Your task to perform on an android device: change the clock display to analog Image 0: 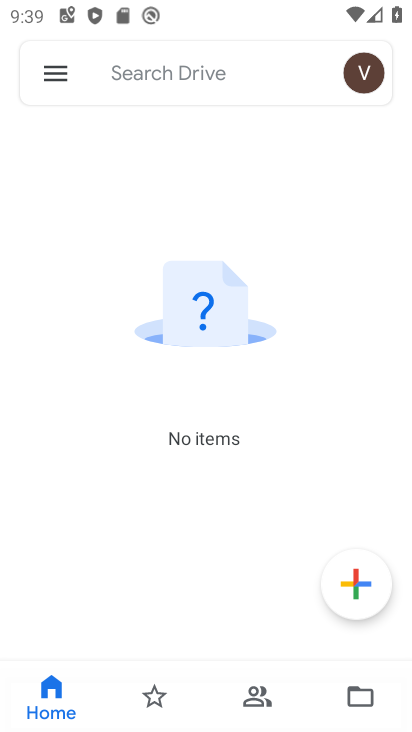
Step 0: press home button
Your task to perform on an android device: change the clock display to analog Image 1: 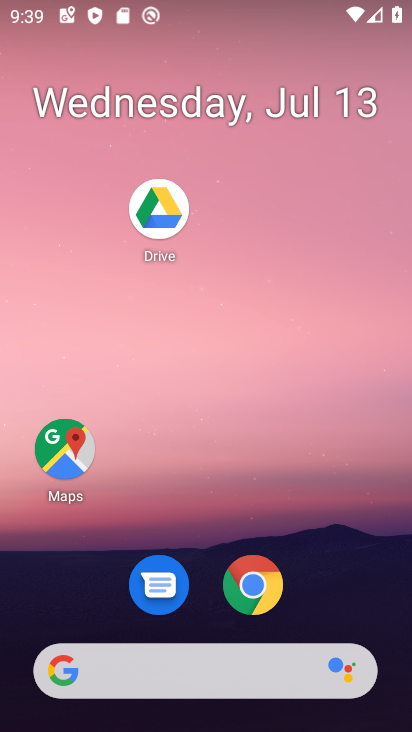
Step 1: drag from (235, 671) to (318, 130)
Your task to perform on an android device: change the clock display to analog Image 2: 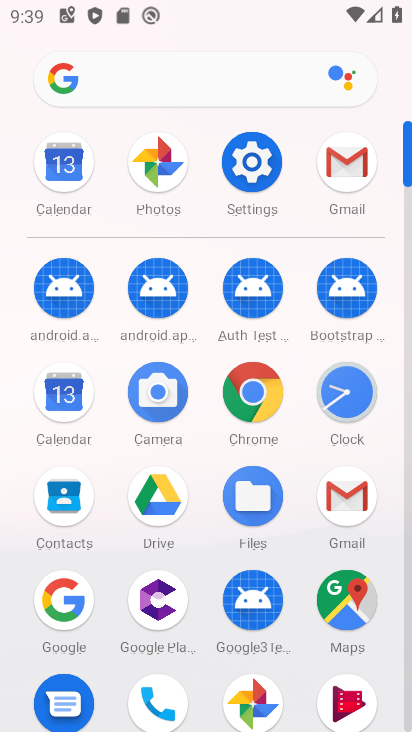
Step 2: click (340, 387)
Your task to perform on an android device: change the clock display to analog Image 3: 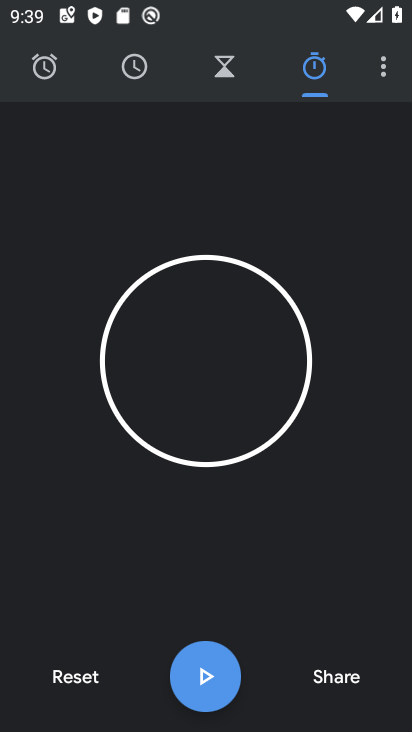
Step 3: click (388, 61)
Your task to perform on an android device: change the clock display to analog Image 4: 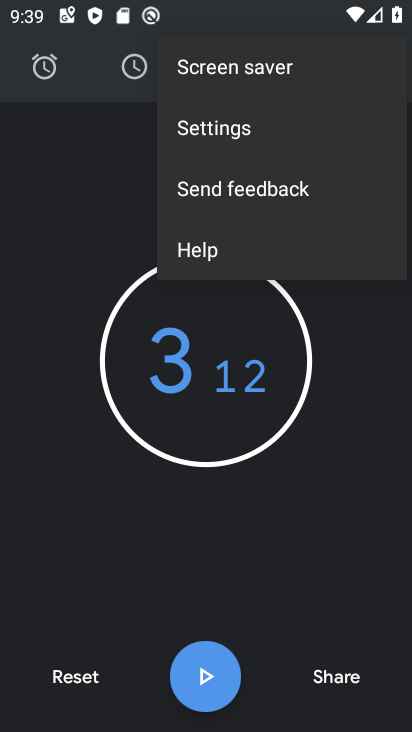
Step 4: click (213, 126)
Your task to perform on an android device: change the clock display to analog Image 5: 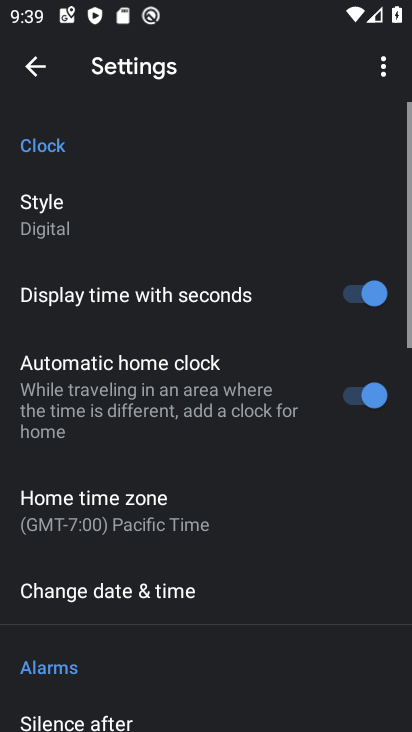
Step 5: click (57, 219)
Your task to perform on an android device: change the clock display to analog Image 6: 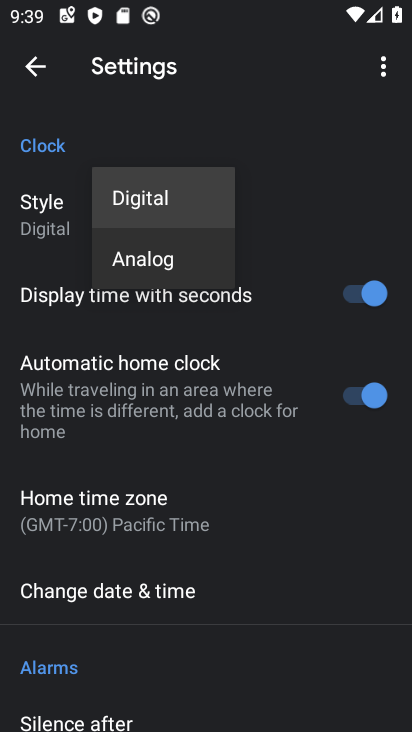
Step 6: click (143, 256)
Your task to perform on an android device: change the clock display to analog Image 7: 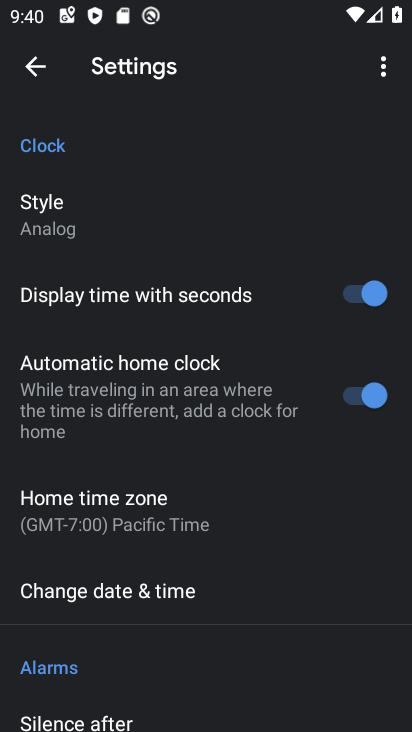
Step 7: task complete